Your task to perform on an android device: Go to privacy settings Image 0: 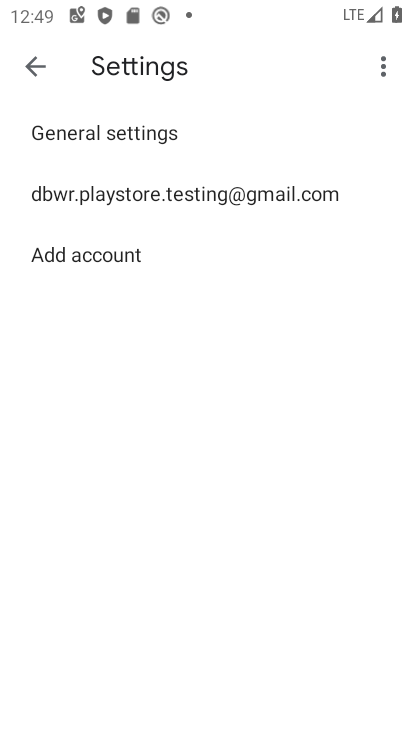
Step 0: press home button
Your task to perform on an android device: Go to privacy settings Image 1: 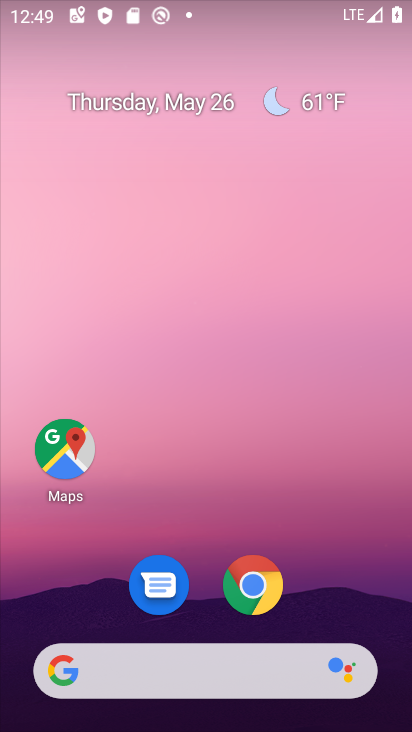
Step 1: drag from (229, 509) to (287, 62)
Your task to perform on an android device: Go to privacy settings Image 2: 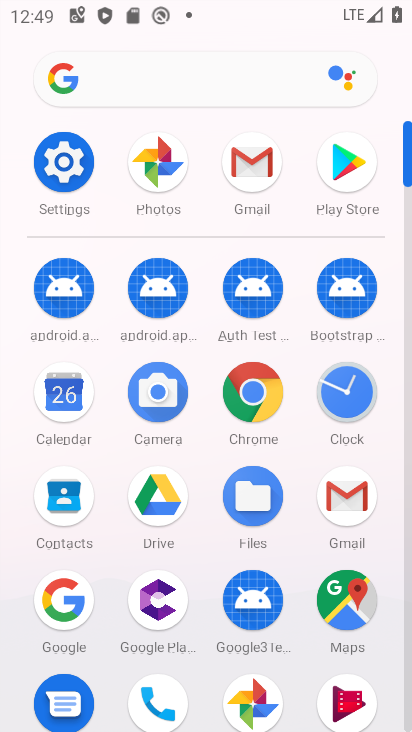
Step 2: click (70, 165)
Your task to perform on an android device: Go to privacy settings Image 3: 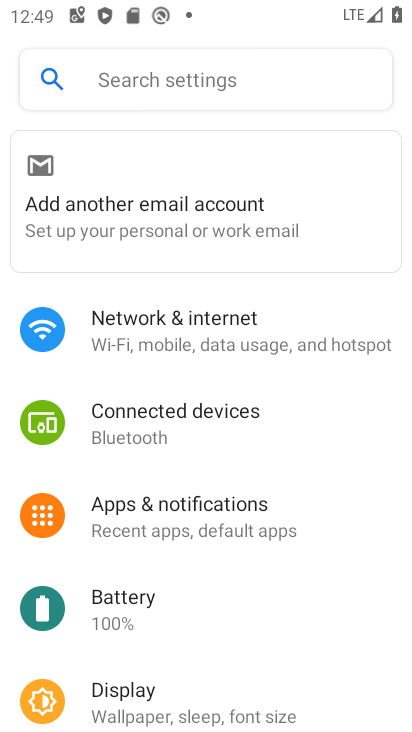
Step 3: drag from (223, 587) to (288, 67)
Your task to perform on an android device: Go to privacy settings Image 4: 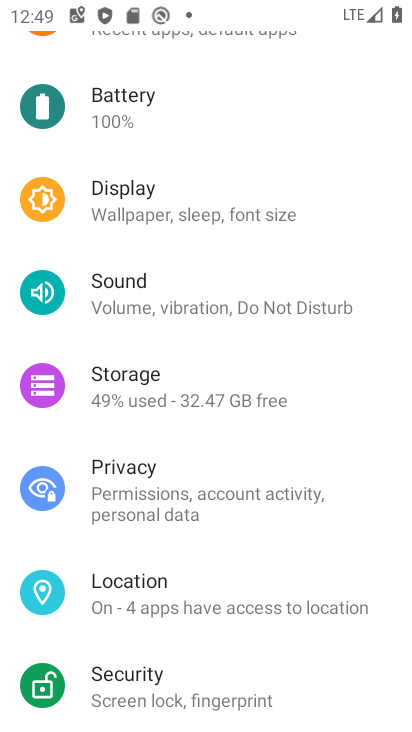
Step 4: click (173, 493)
Your task to perform on an android device: Go to privacy settings Image 5: 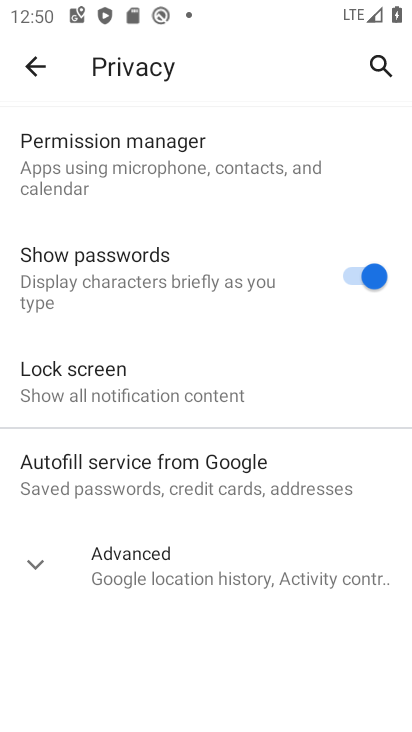
Step 5: task complete